Your task to perform on an android device: Open privacy settings Image 0: 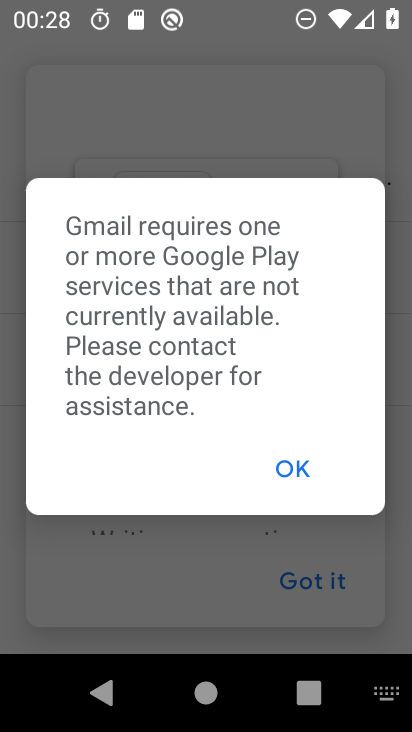
Step 0: press home button
Your task to perform on an android device: Open privacy settings Image 1: 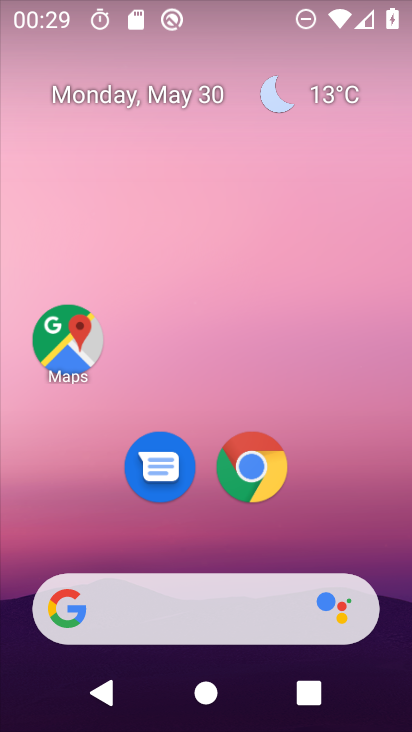
Step 1: drag from (207, 540) to (225, 210)
Your task to perform on an android device: Open privacy settings Image 2: 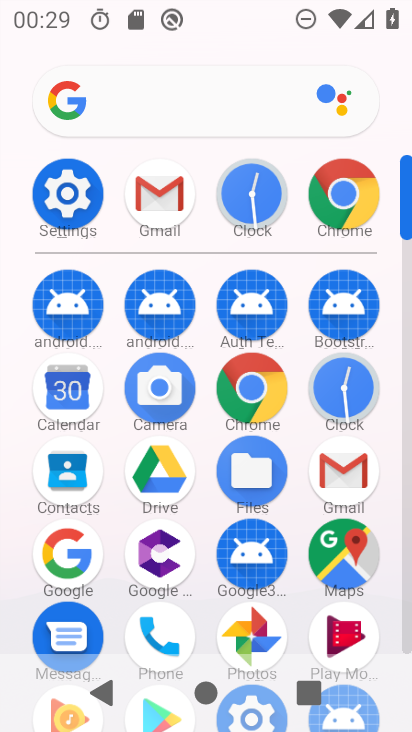
Step 2: click (67, 207)
Your task to perform on an android device: Open privacy settings Image 3: 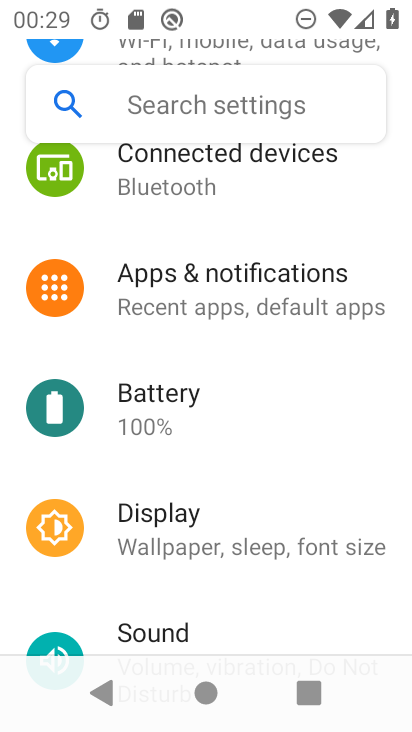
Step 3: click (262, 230)
Your task to perform on an android device: Open privacy settings Image 4: 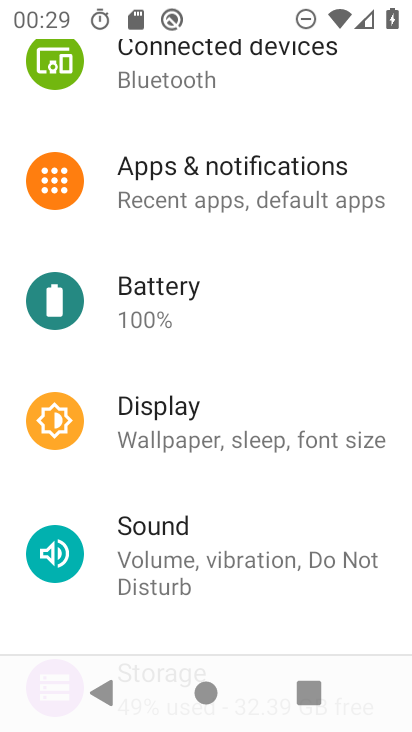
Step 4: drag from (256, 537) to (221, 130)
Your task to perform on an android device: Open privacy settings Image 5: 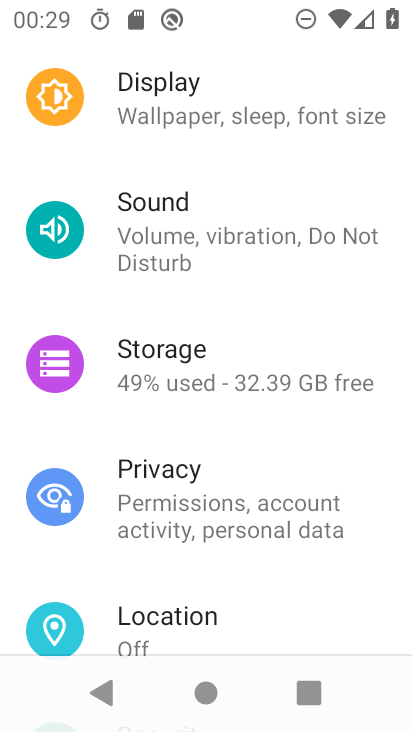
Step 5: click (227, 463)
Your task to perform on an android device: Open privacy settings Image 6: 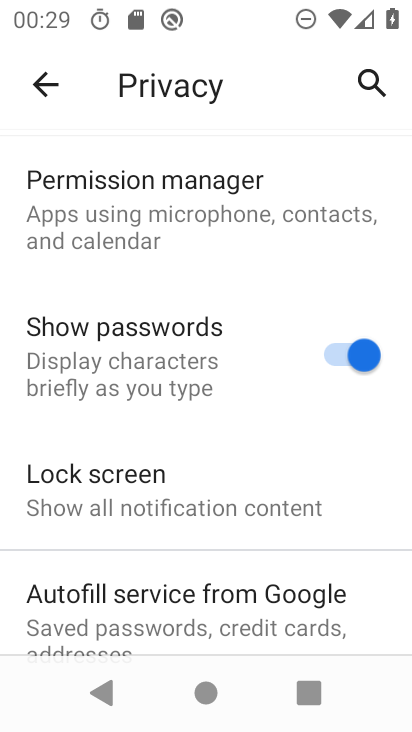
Step 6: task complete